Your task to perform on an android device: set default search engine in the chrome app Image 0: 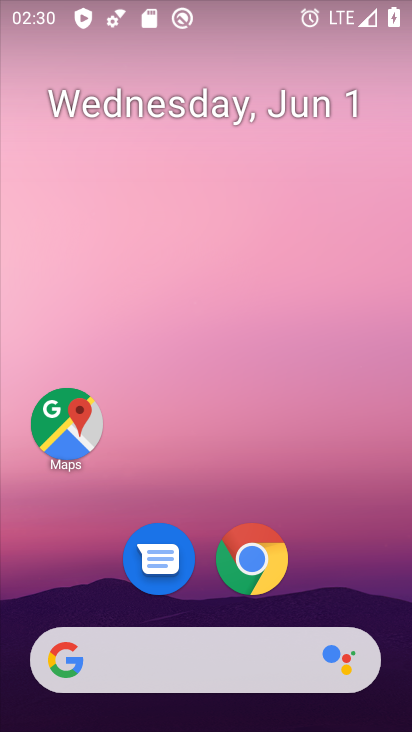
Step 0: click (252, 552)
Your task to perform on an android device: set default search engine in the chrome app Image 1: 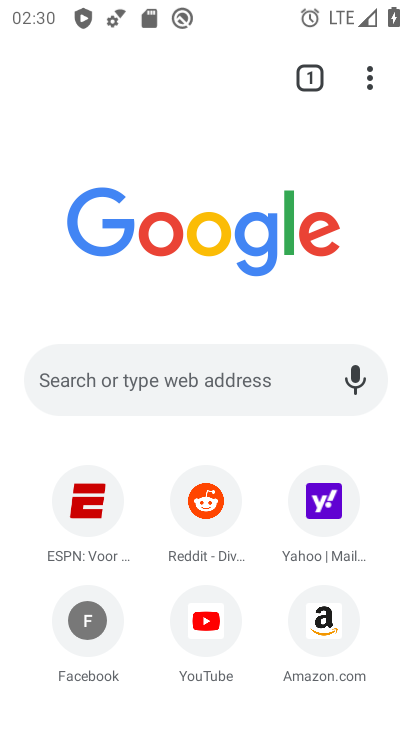
Step 1: drag from (372, 82) to (61, 639)
Your task to perform on an android device: set default search engine in the chrome app Image 2: 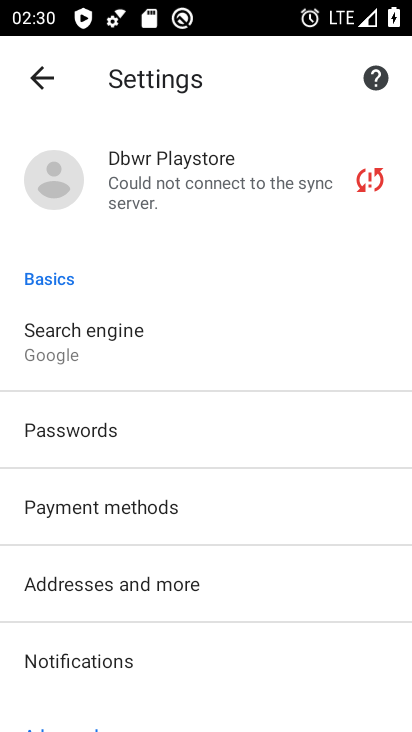
Step 2: click (77, 335)
Your task to perform on an android device: set default search engine in the chrome app Image 3: 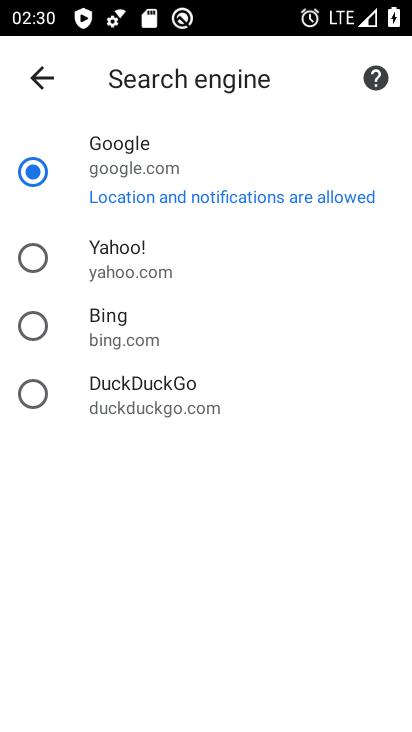
Step 3: click (39, 260)
Your task to perform on an android device: set default search engine in the chrome app Image 4: 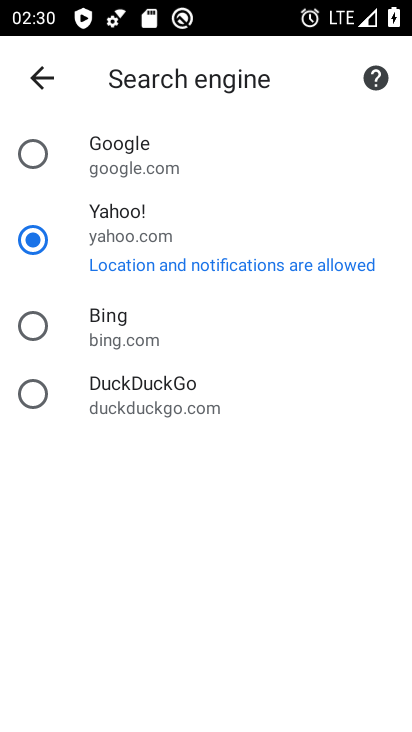
Step 4: task complete